Your task to perform on an android device: Set the phone to "Do not disturb". Image 0: 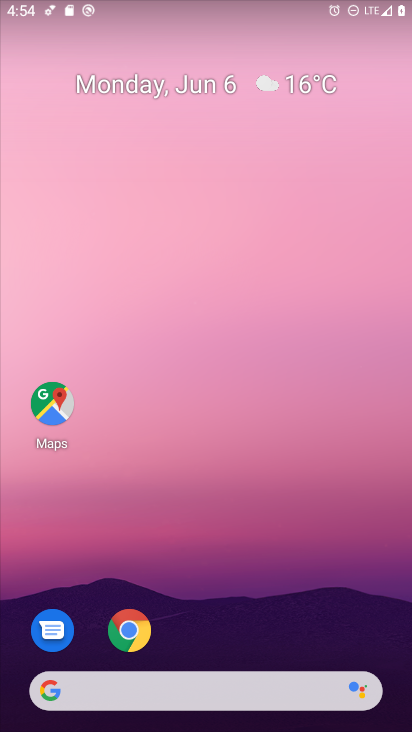
Step 0: drag from (318, 429) to (276, 28)
Your task to perform on an android device: Set the phone to "Do not disturb". Image 1: 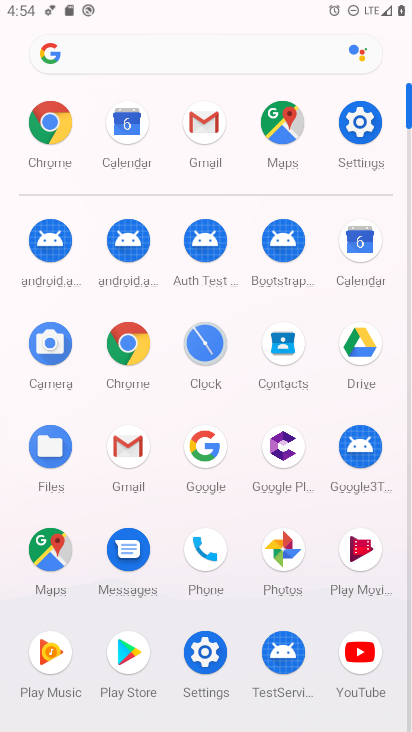
Step 1: click (363, 116)
Your task to perform on an android device: Set the phone to "Do not disturb". Image 2: 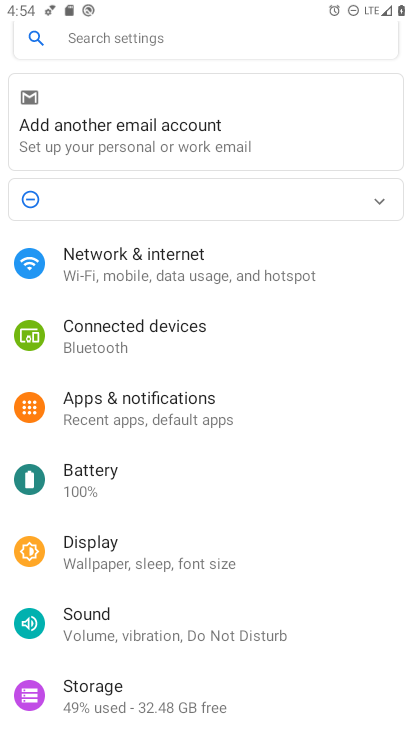
Step 2: click (178, 590)
Your task to perform on an android device: Set the phone to "Do not disturb". Image 3: 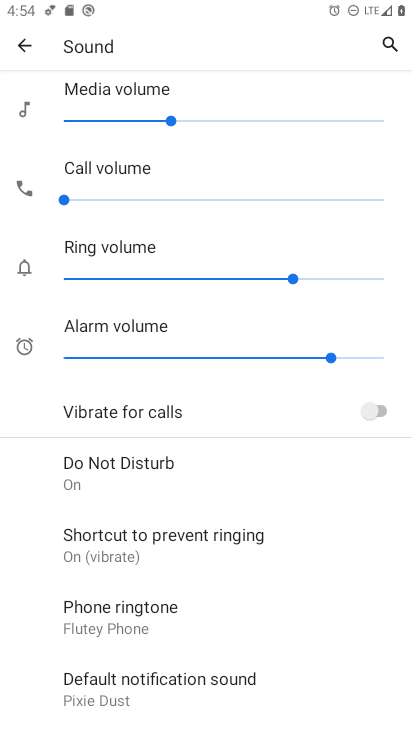
Step 3: click (157, 477)
Your task to perform on an android device: Set the phone to "Do not disturb". Image 4: 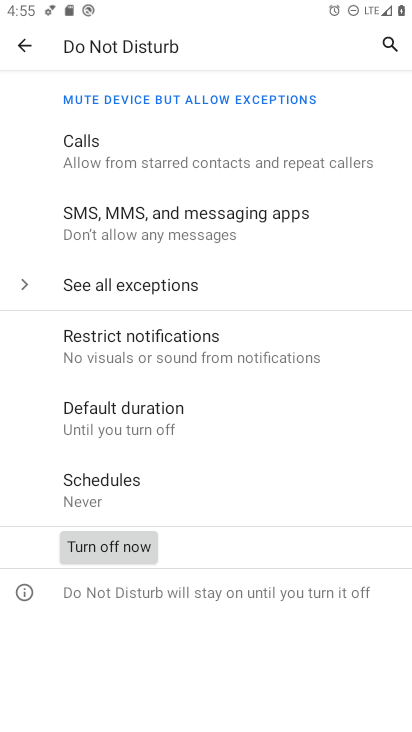
Step 4: task complete